Your task to perform on an android device: Do I have any events tomorrow? Image 0: 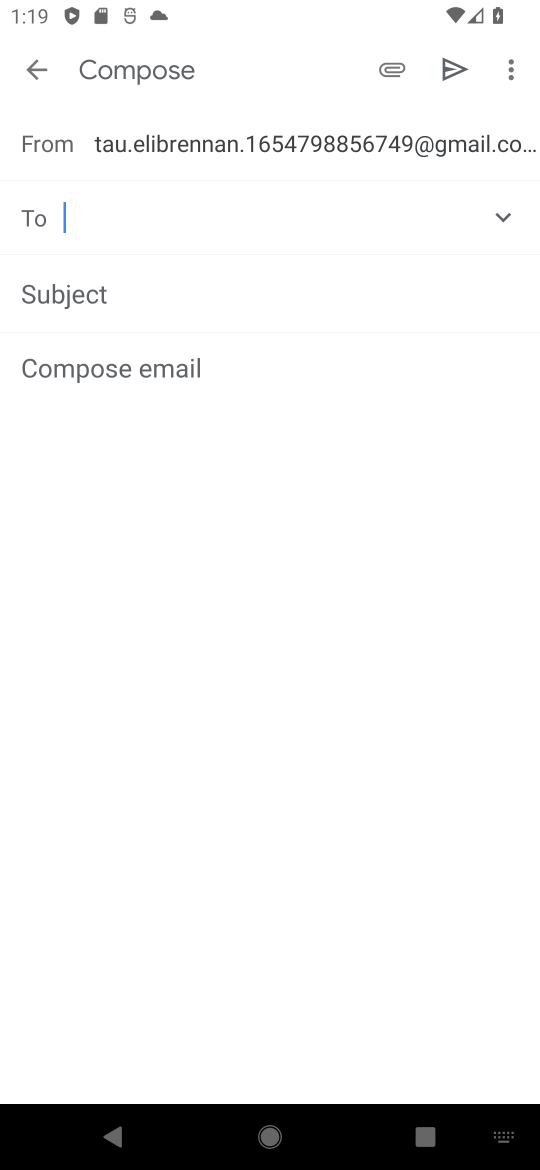
Step 0: press home button
Your task to perform on an android device: Do I have any events tomorrow? Image 1: 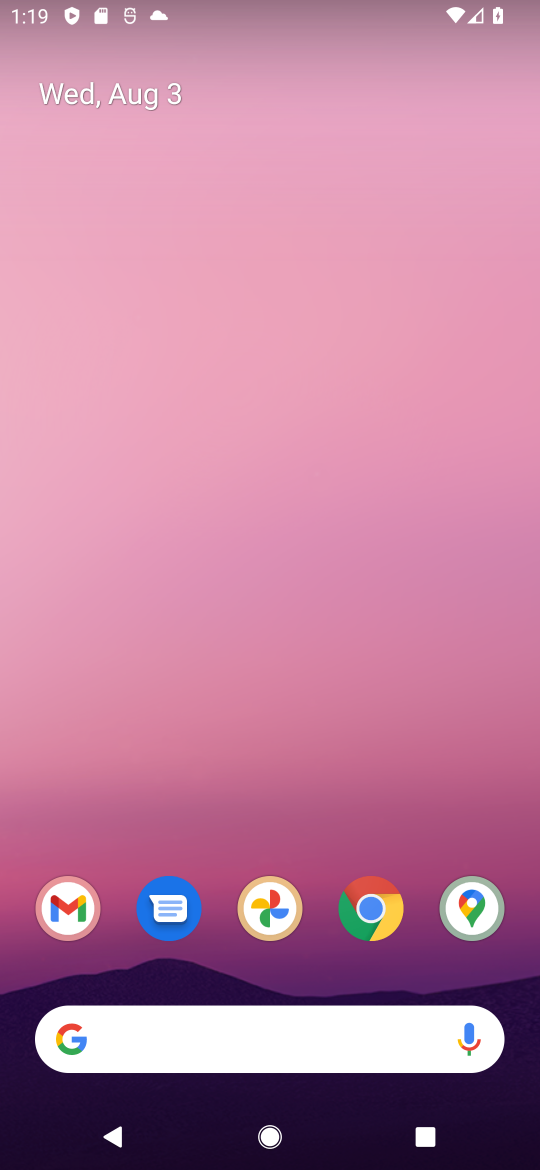
Step 1: drag from (209, 914) to (246, 96)
Your task to perform on an android device: Do I have any events tomorrow? Image 2: 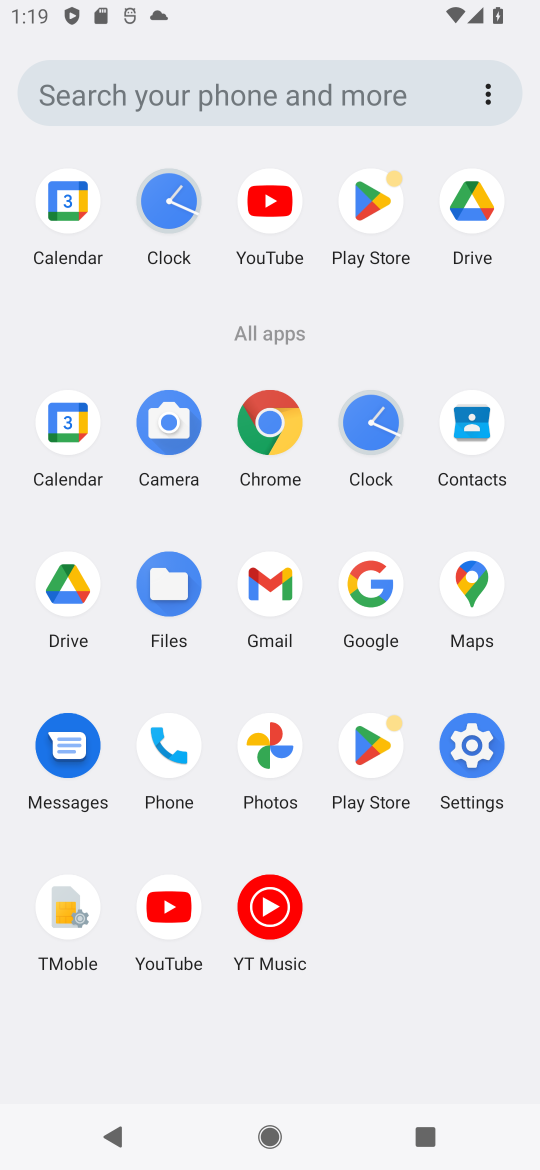
Step 2: click (74, 445)
Your task to perform on an android device: Do I have any events tomorrow? Image 3: 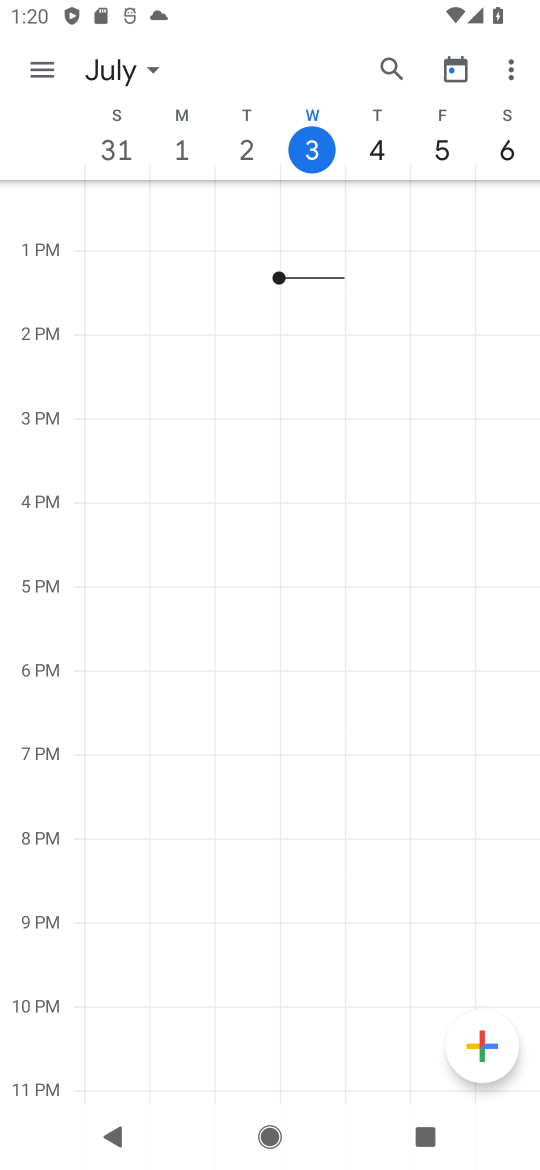
Step 3: click (48, 81)
Your task to perform on an android device: Do I have any events tomorrow? Image 4: 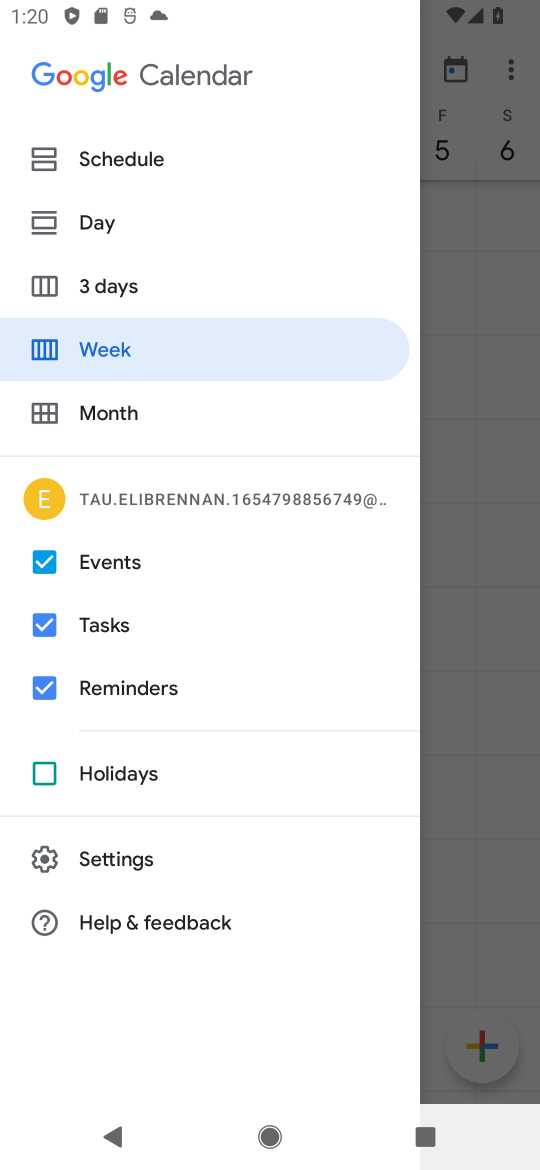
Step 4: click (112, 156)
Your task to perform on an android device: Do I have any events tomorrow? Image 5: 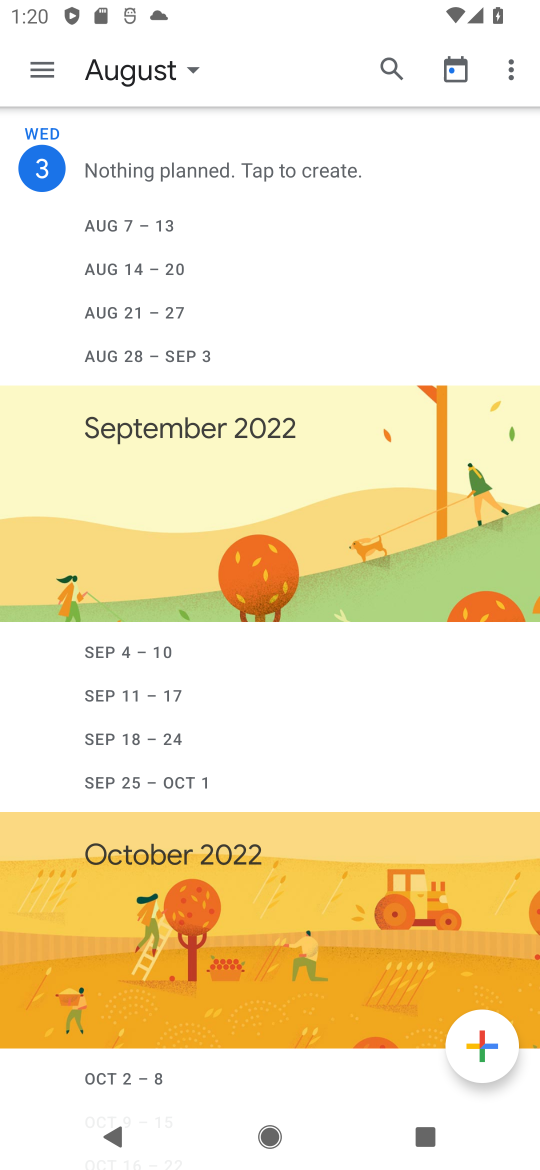
Step 5: click (146, 69)
Your task to perform on an android device: Do I have any events tomorrow? Image 6: 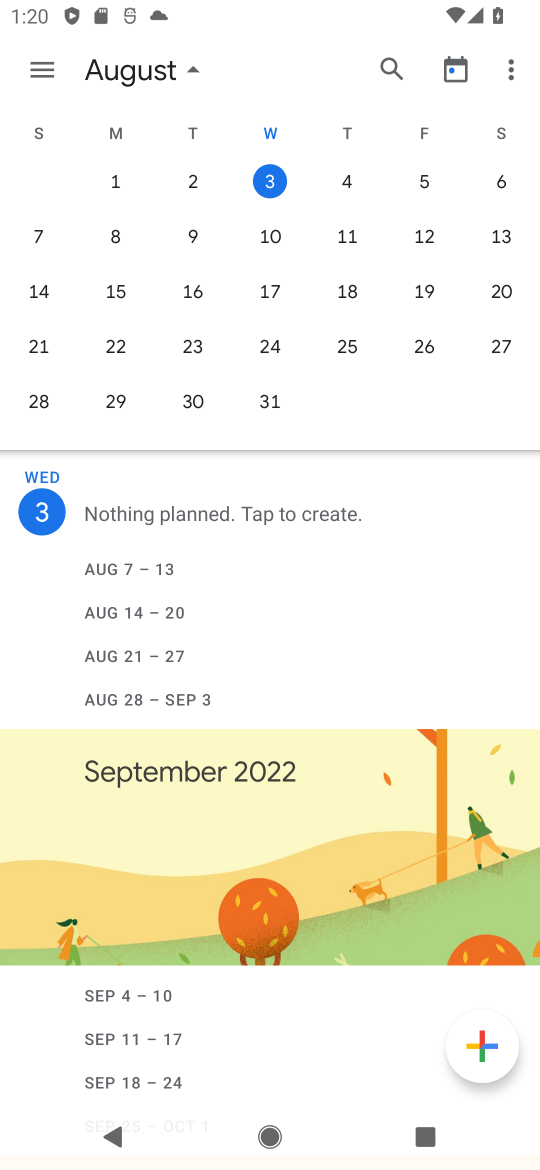
Step 6: click (343, 175)
Your task to perform on an android device: Do I have any events tomorrow? Image 7: 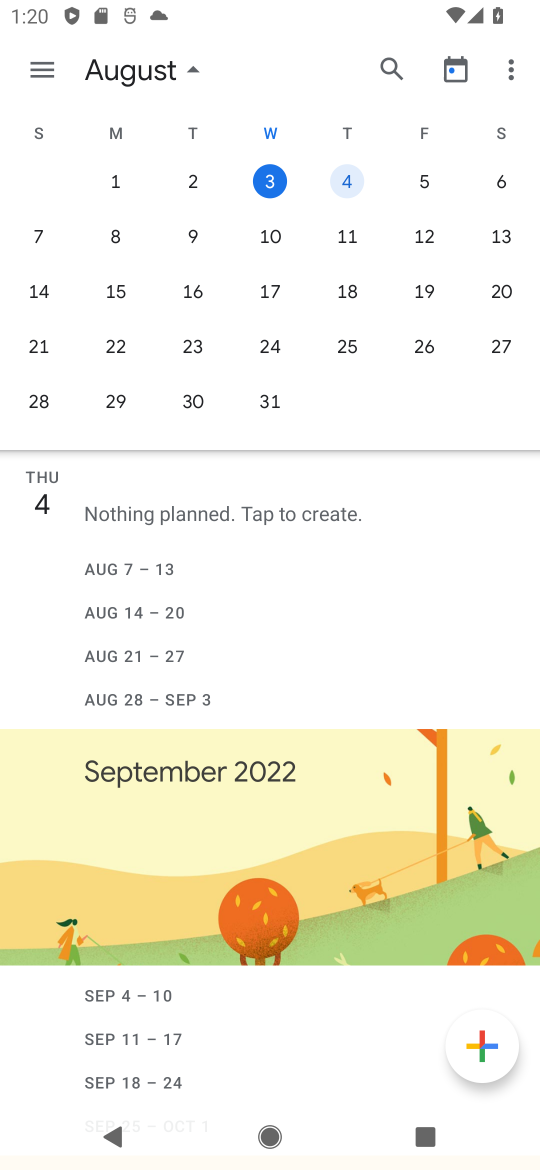
Step 7: task complete